Your task to perform on an android device: clear all cookies in the chrome app Image 0: 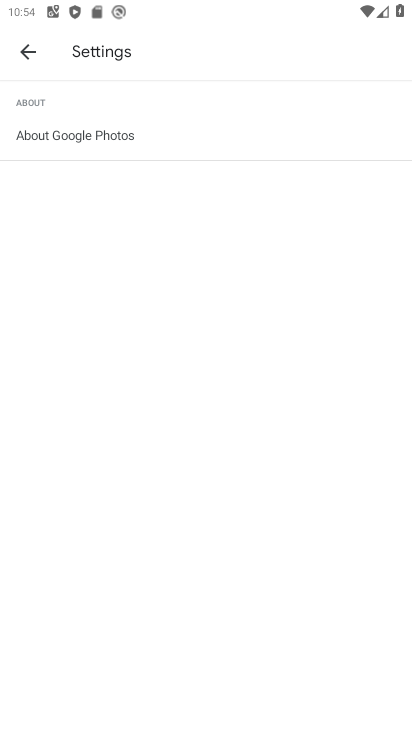
Step 0: press home button
Your task to perform on an android device: clear all cookies in the chrome app Image 1: 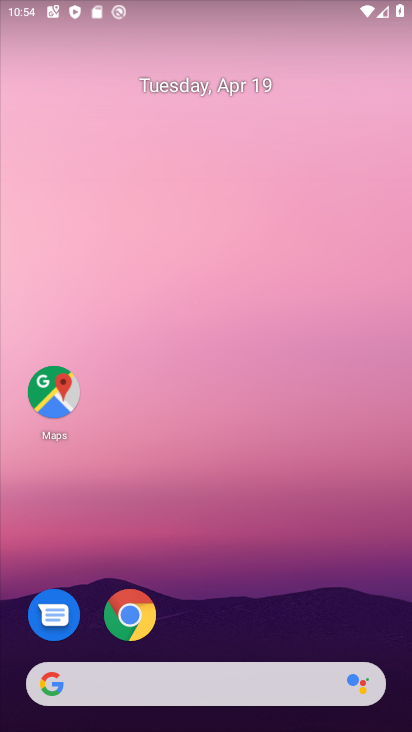
Step 1: click (125, 615)
Your task to perform on an android device: clear all cookies in the chrome app Image 2: 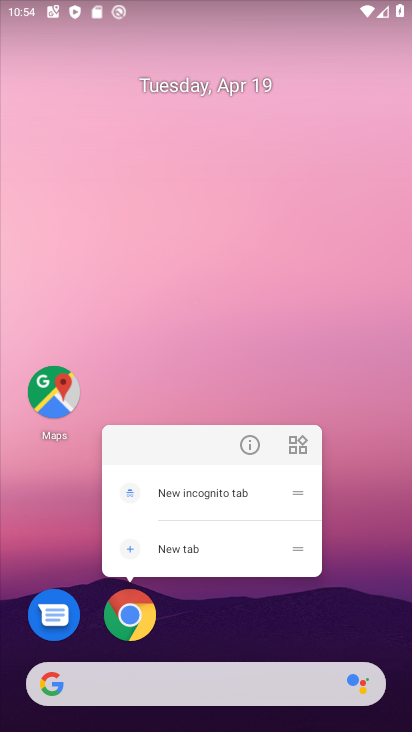
Step 2: click (195, 611)
Your task to perform on an android device: clear all cookies in the chrome app Image 3: 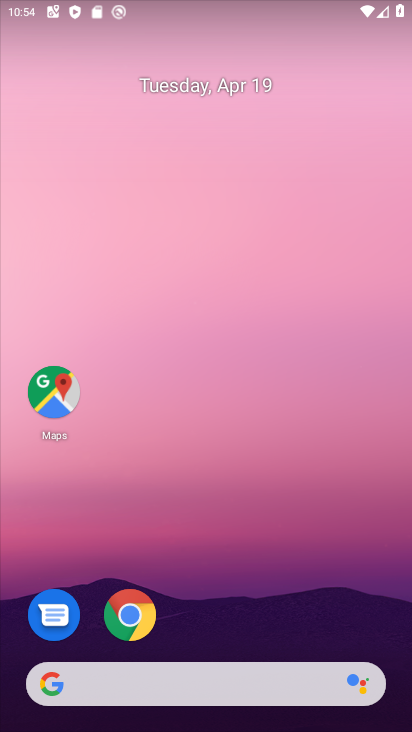
Step 3: click (131, 617)
Your task to perform on an android device: clear all cookies in the chrome app Image 4: 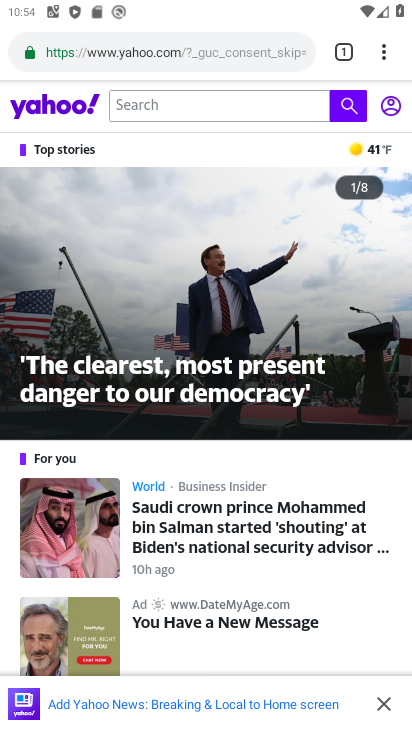
Step 4: click (376, 49)
Your task to perform on an android device: clear all cookies in the chrome app Image 5: 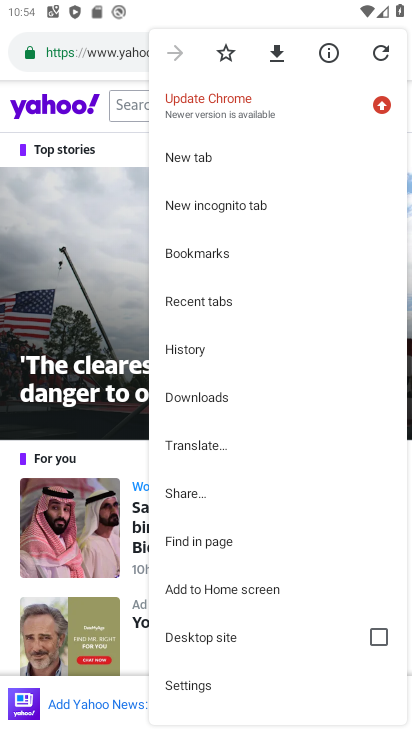
Step 5: click (212, 688)
Your task to perform on an android device: clear all cookies in the chrome app Image 6: 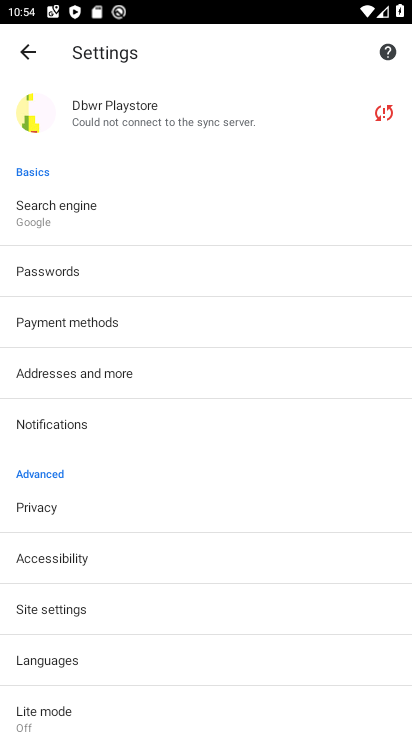
Step 6: click (132, 507)
Your task to perform on an android device: clear all cookies in the chrome app Image 7: 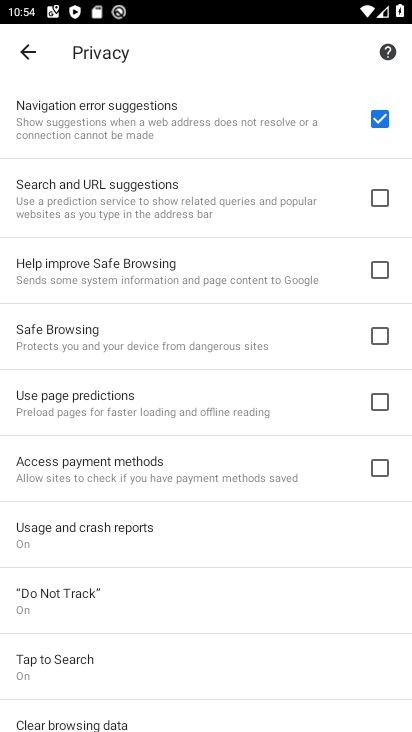
Step 7: drag from (311, 578) to (294, 188)
Your task to perform on an android device: clear all cookies in the chrome app Image 8: 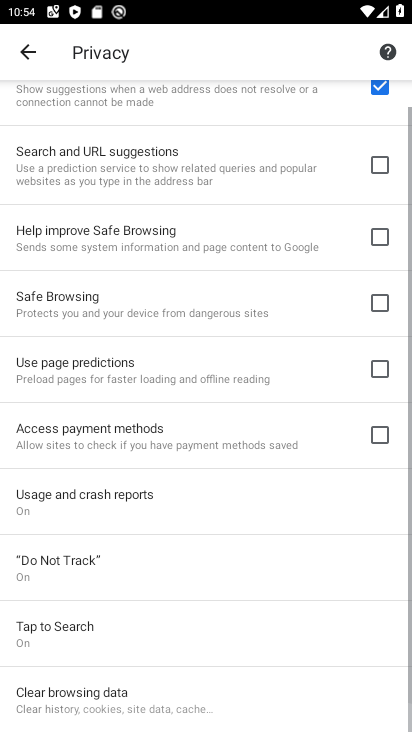
Step 8: click (74, 694)
Your task to perform on an android device: clear all cookies in the chrome app Image 9: 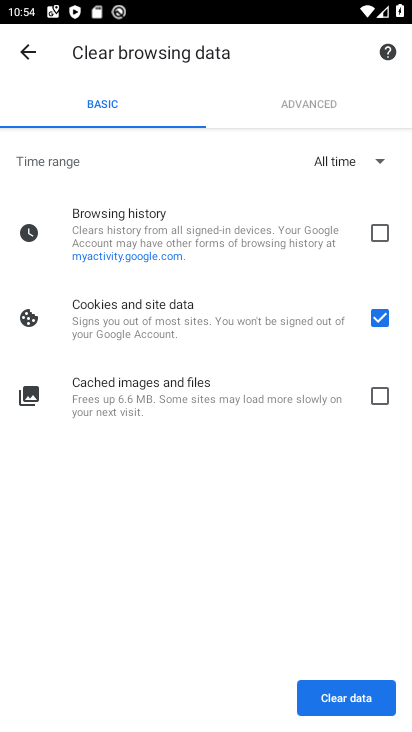
Step 9: click (334, 697)
Your task to perform on an android device: clear all cookies in the chrome app Image 10: 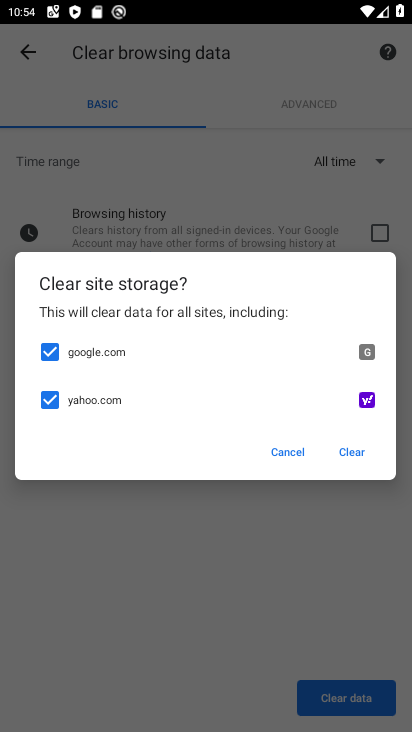
Step 10: click (358, 436)
Your task to perform on an android device: clear all cookies in the chrome app Image 11: 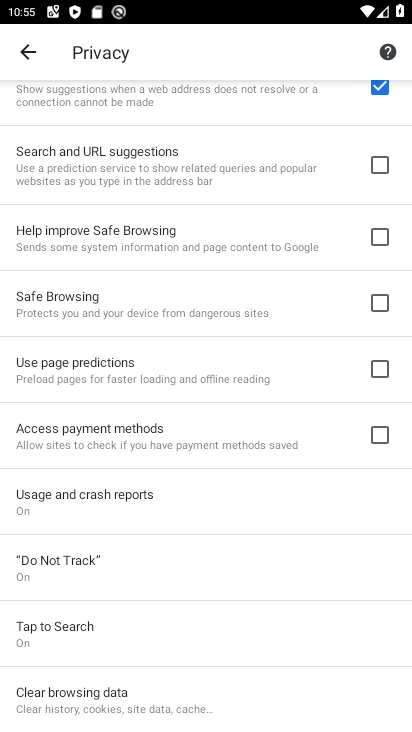
Step 11: task complete